Your task to perform on an android device: Open network settings Image 0: 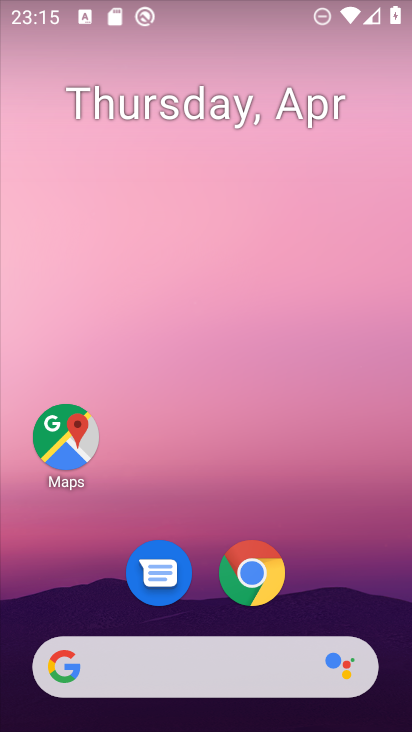
Step 0: click (283, 103)
Your task to perform on an android device: Open network settings Image 1: 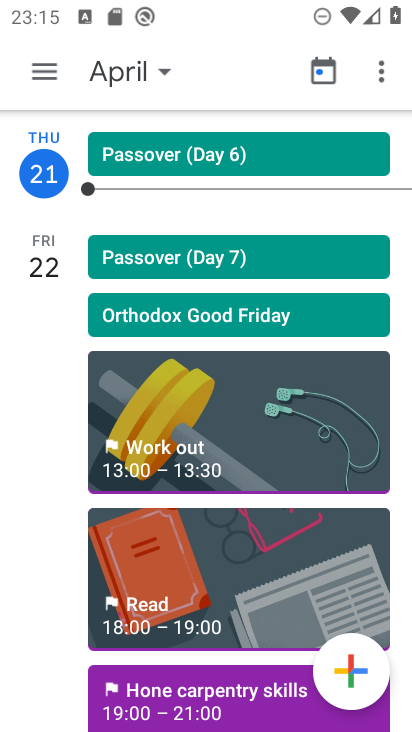
Step 1: press home button
Your task to perform on an android device: Open network settings Image 2: 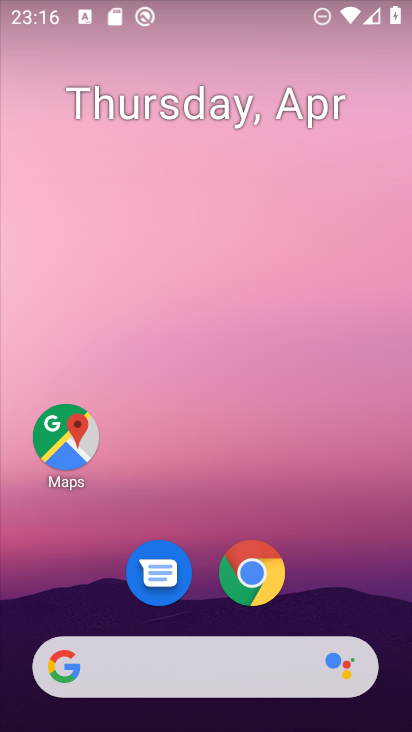
Step 2: drag from (301, 617) to (278, 87)
Your task to perform on an android device: Open network settings Image 3: 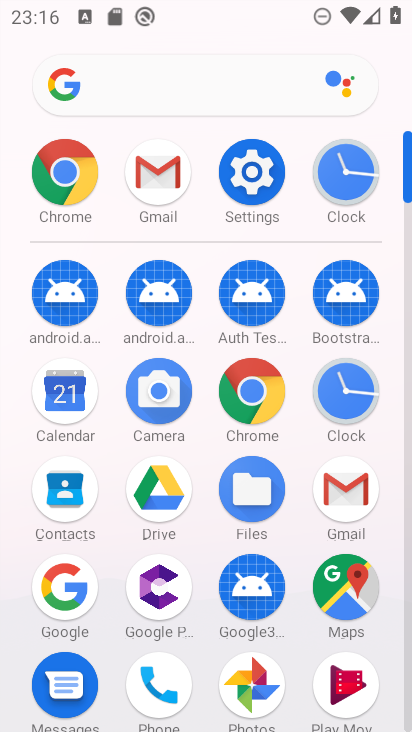
Step 3: click (252, 173)
Your task to perform on an android device: Open network settings Image 4: 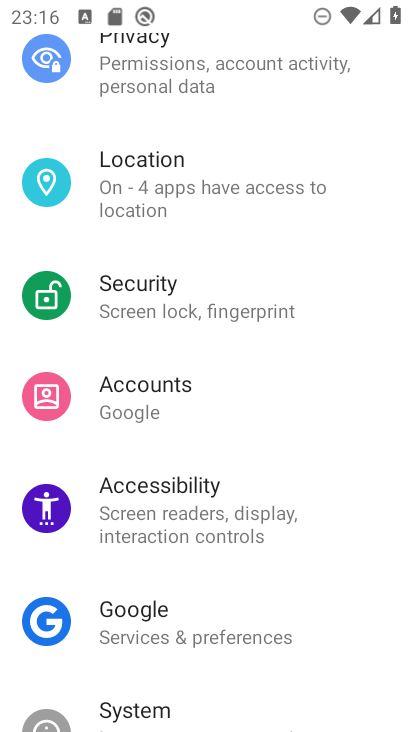
Step 4: drag from (276, 290) to (273, 660)
Your task to perform on an android device: Open network settings Image 5: 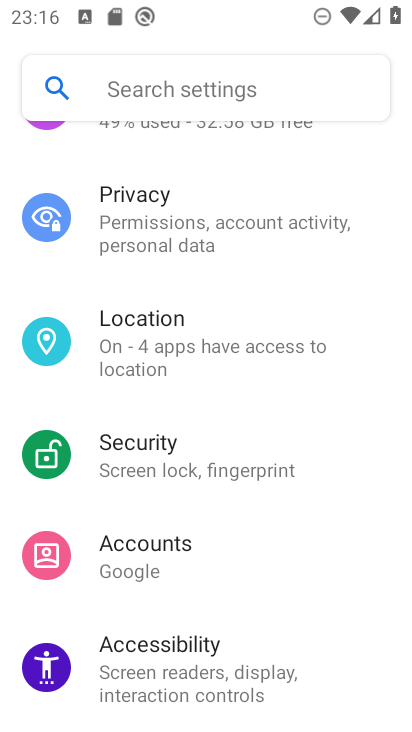
Step 5: drag from (290, 173) to (277, 627)
Your task to perform on an android device: Open network settings Image 6: 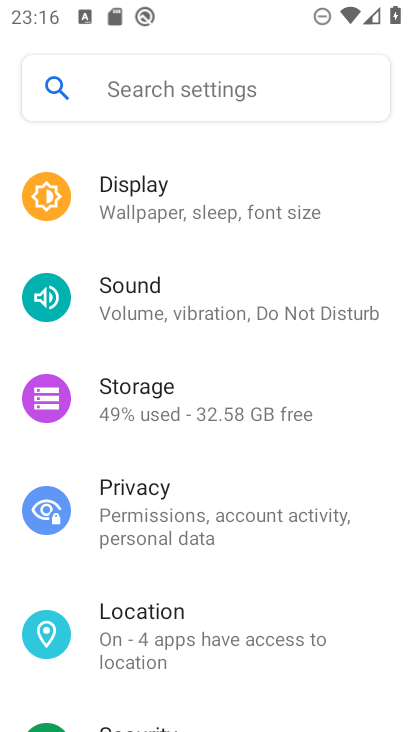
Step 6: drag from (223, 136) to (263, 671)
Your task to perform on an android device: Open network settings Image 7: 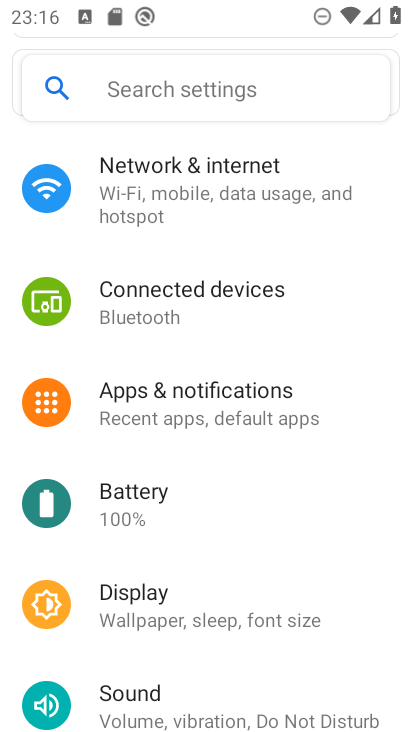
Step 7: click (214, 207)
Your task to perform on an android device: Open network settings Image 8: 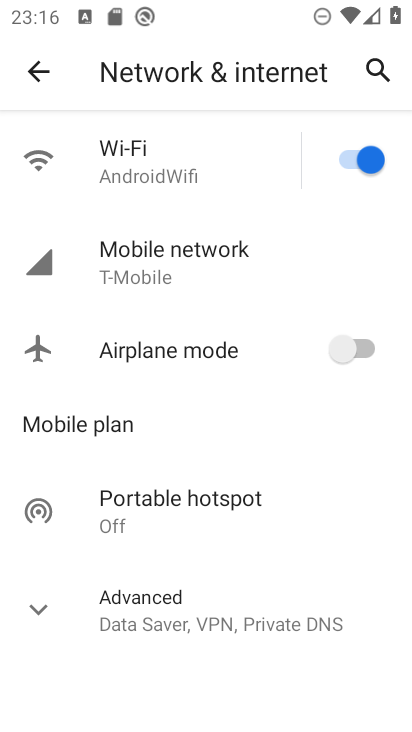
Step 8: task complete